Your task to perform on an android device: Is it going to rain this weekend? Image 0: 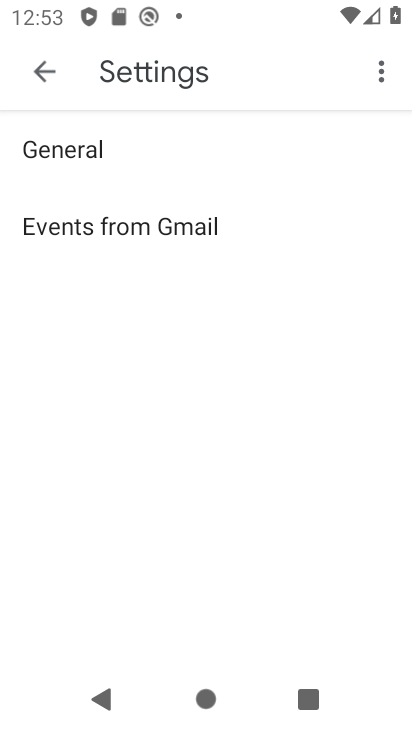
Step 0: press home button
Your task to perform on an android device: Is it going to rain this weekend? Image 1: 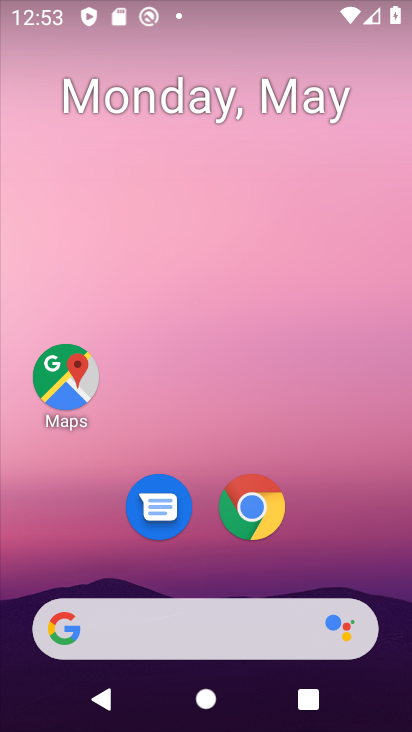
Step 1: click (251, 496)
Your task to perform on an android device: Is it going to rain this weekend? Image 2: 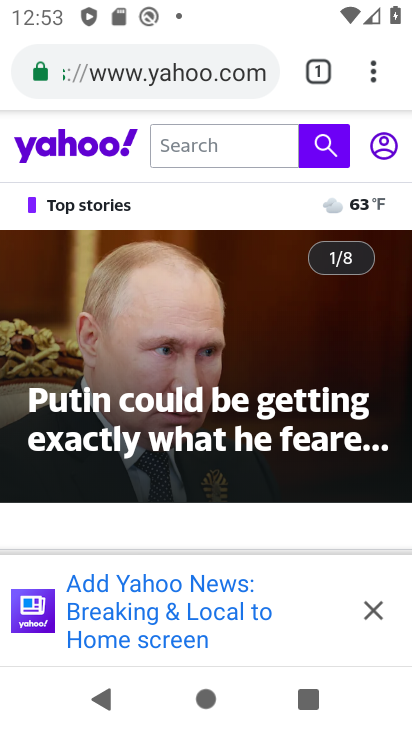
Step 2: click (217, 87)
Your task to perform on an android device: Is it going to rain this weekend? Image 3: 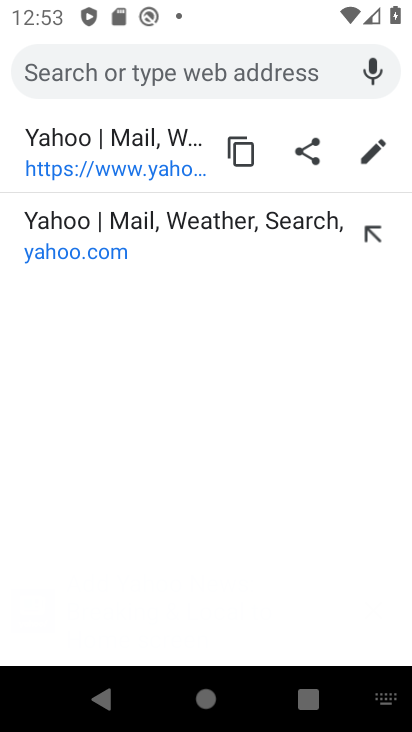
Step 3: type "weather"
Your task to perform on an android device: Is it going to rain this weekend? Image 4: 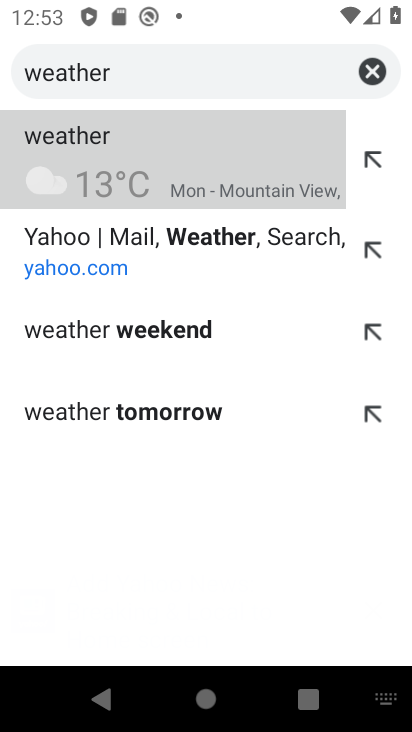
Step 4: click (57, 134)
Your task to perform on an android device: Is it going to rain this weekend? Image 5: 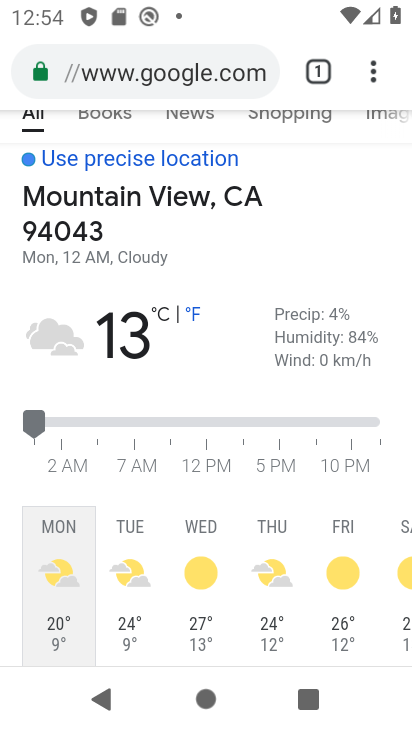
Step 5: task complete